Your task to perform on an android device: Set the phone to "Do not disturb". Image 0: 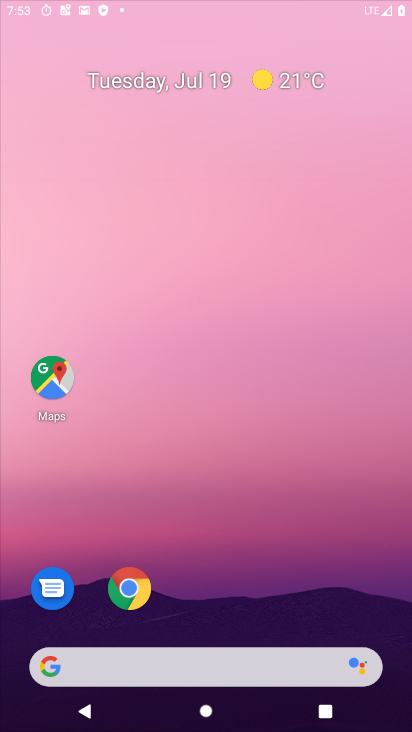
Step 0: click (336, 393)
Your task to perform on an android device: Set the phone to "Do not disturb". Image 1: 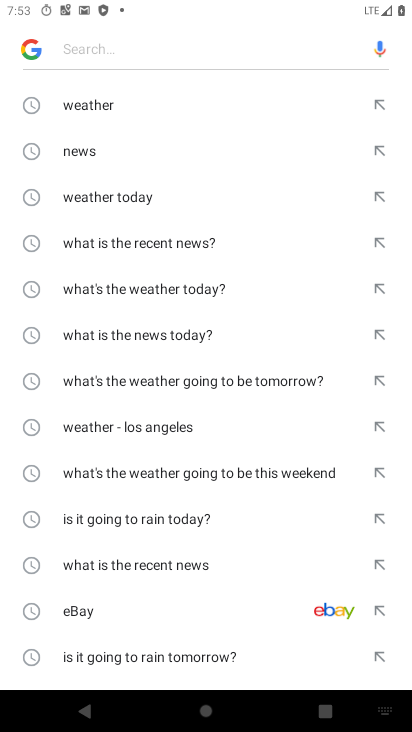
Step 1: press back button
Your task to perform on an android device: Set the phone to "Do not disturb". Image 2: 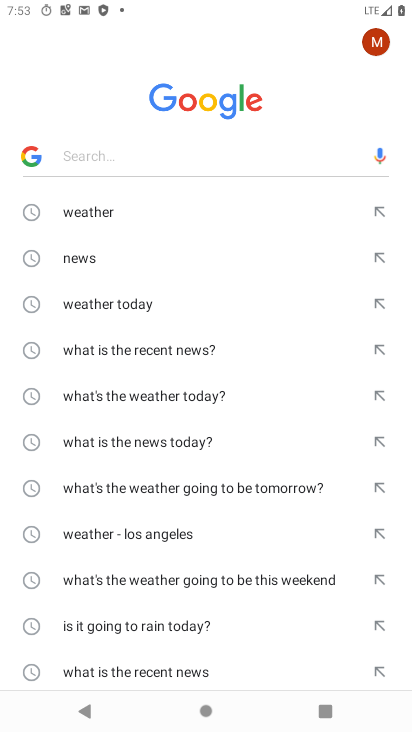
Step 2: press back button
Your task to perform on an android device: Set the phone to "Do not disturb". Image 3: 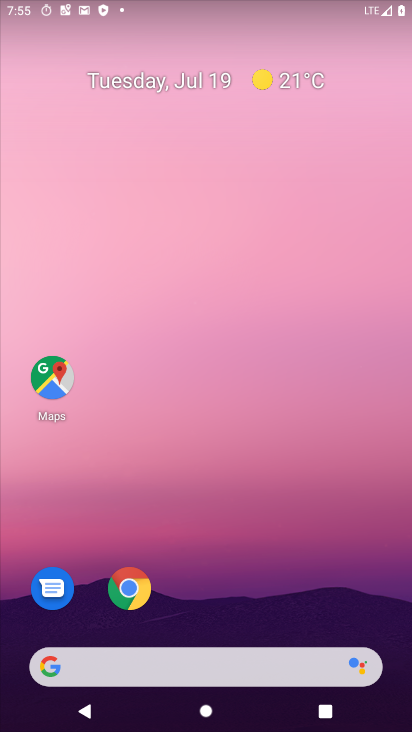
Step 3: drag from (231, 557) to (217, 132)
Your task to perform on an android device: Set the phone to "Do not disturb". Image 4: 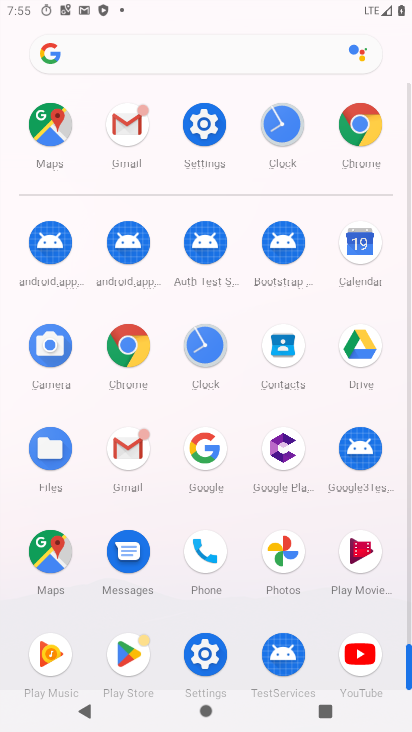
Step 4: click (222, 142)
Your task to perform on an android device: Set the phone to "Do not disturb". Image 5: 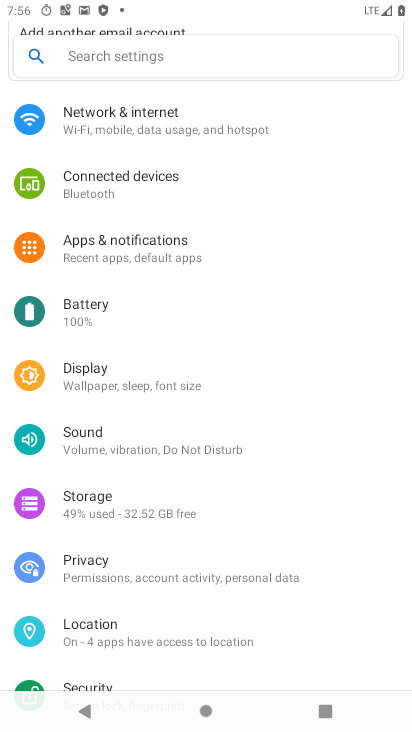
Step 5: click (227, 175)
Your task to perform on an android device: Set the phone to "Do not disturb". Image 6: 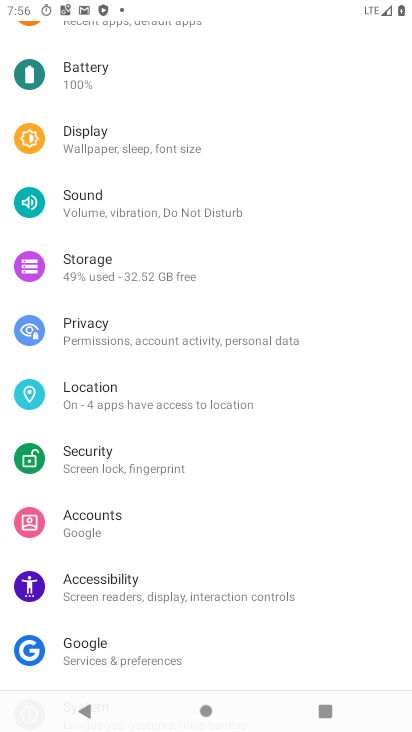
Step 6: drag from (211, 542) to (207, 648)
Your task to perform on an android device: Set the phone to "Do not disturb". Image 7: 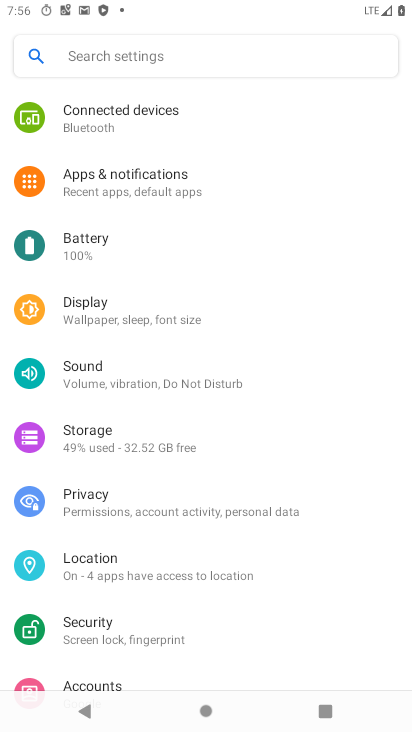
Step 7: click (245, 387)
Your task to perform on an android device: Set the phone to "Do not disturb". Image 8: 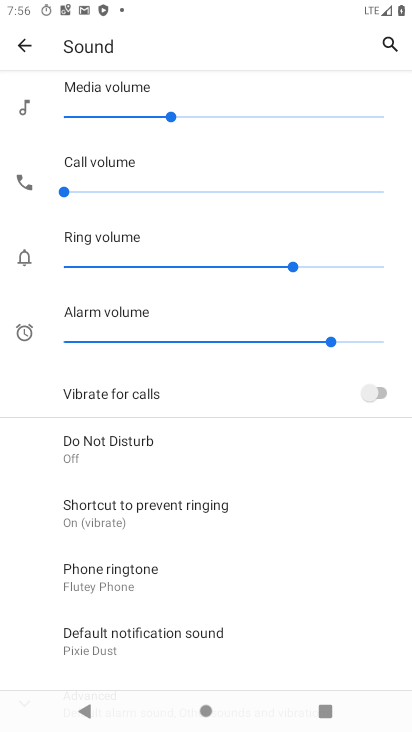
Step 8: drag from (256, 557) to (267, 111)
Your task to perform on an android device: Set the phone to "Do not disturb". Image 9: 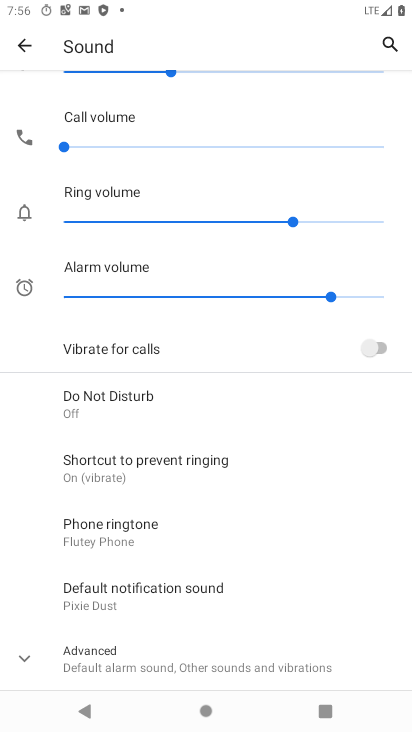
Step 9: click (206, 405)
Your task to perform on an android device: Set the phone to "Do not disturb". Image 10: 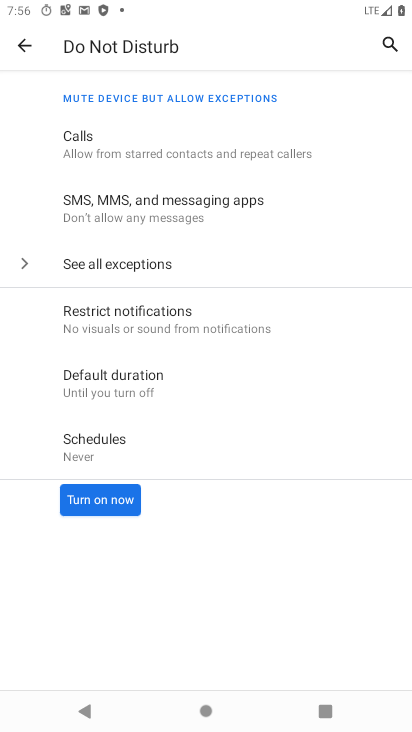
Step 10: click (124, 500)
Your task to perform on an android device: Set the phone to "Do not disturb". Image 11: 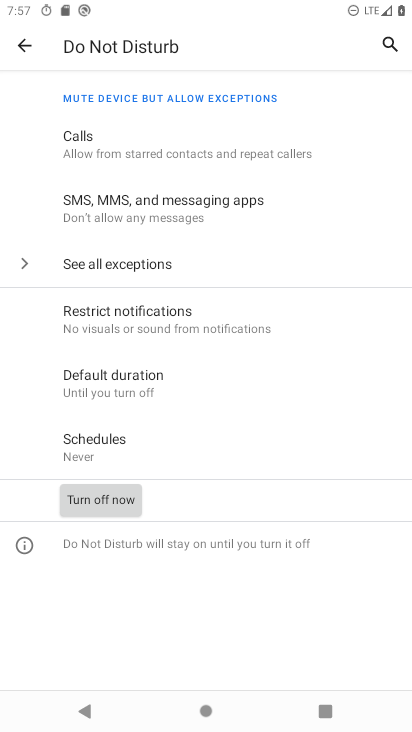
Step 11: task complete